Your task to perform on an android device: Show the shopping cart on target. Search for "usb-c" on target, select the first entry, and add it to the cart. Image 0: 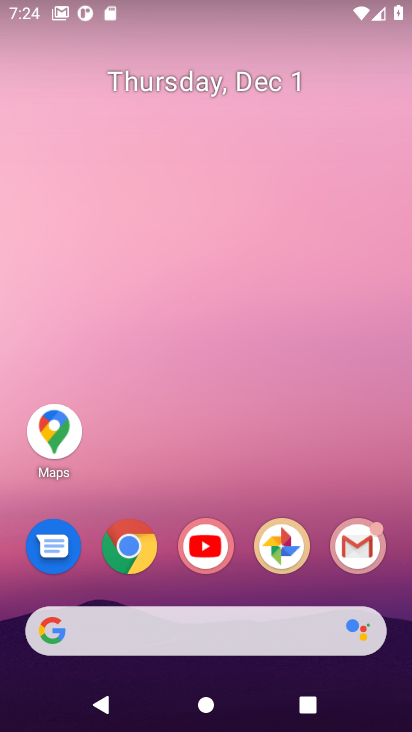
Step 0: click (129, 553)
Your task to perform on an android device: Show the shopping cart on target. Search for "usb-c" on target, select the first entry, and add it to the cart. Image 1: 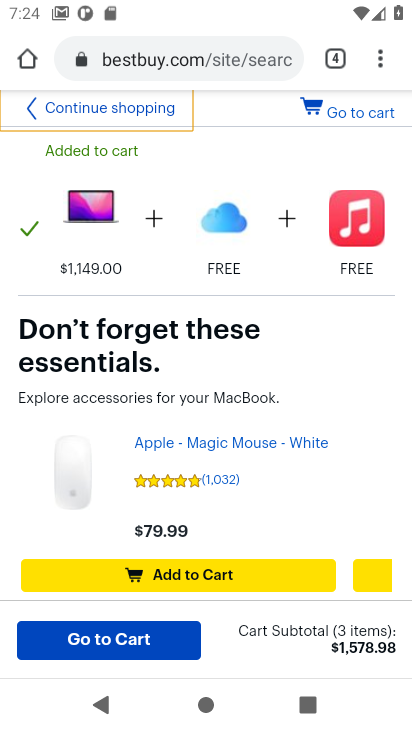
Step 1: click (149, 60)
Your task to perform on an android device: Show the shopping cart on target. Search for "usb-c" on target, select the first entry, and add it to the cart. Image 2: 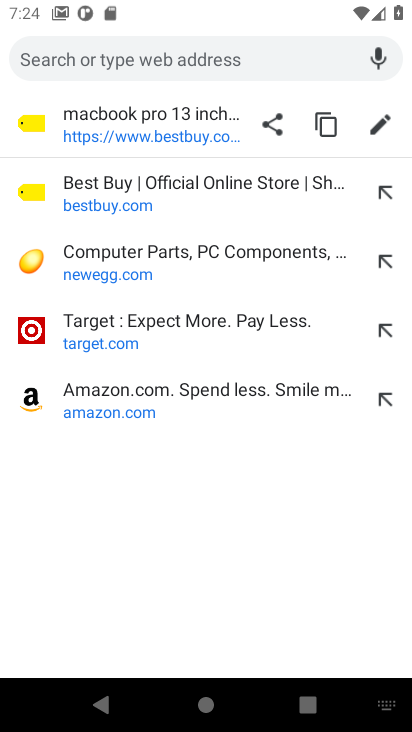
Step 2: click (80, 325)
Your task to perform on an android device: Show the shopping cart on target. Search for "usb-c" on target, select the first entry, and add it to the cart. Image 3: 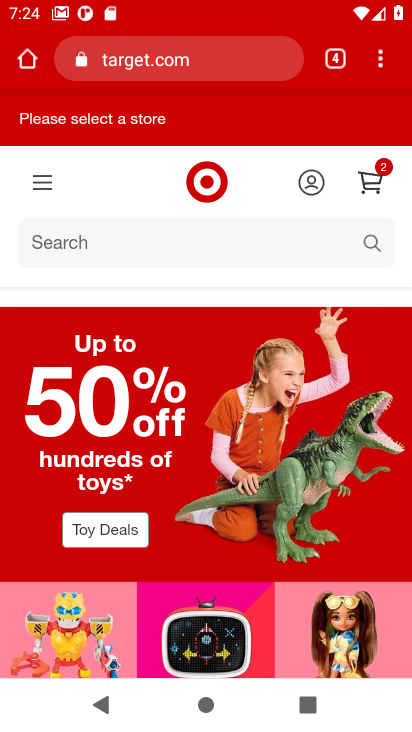
Step 3: click (373, 184)
Your task to perform on an android device: Show the shopping cart on target. Search for "usb-c" on target, select the first entry, and add it to the cart. Image 4: 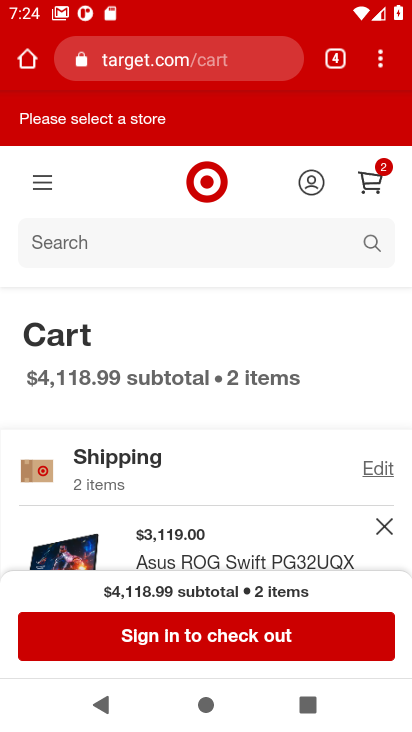
Step 4: click (64, 251)
Your task to perform on an android device: Show the shopping cart on target. Search for "usb-c" on target, select the first entry, and add it to the cart. Image 5: 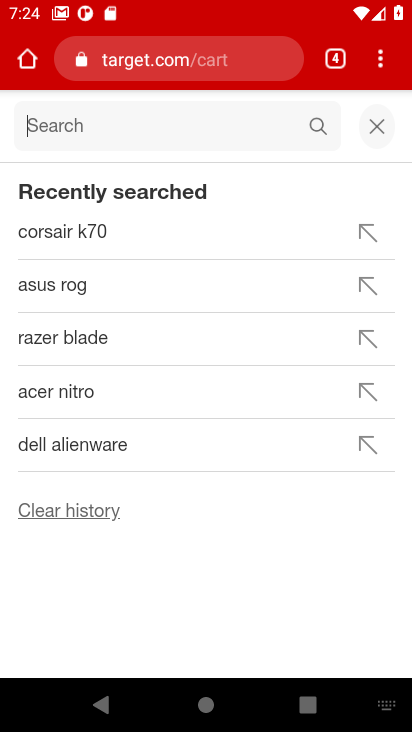
Step 5: type "usb-c"
Your task to perform on an android device: Show the shopping cart on target. Search for "usb-c" on target, select the first entry, and add it to the cart. Image 6: 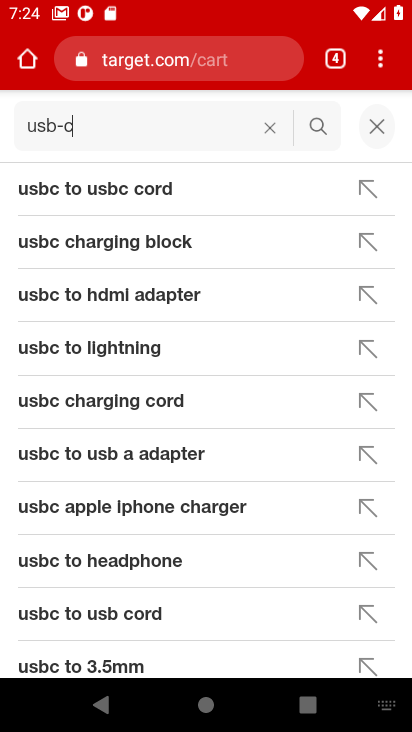
Step 6: click (317, 130)
Your task to perform on an android device: Show the shopping cart on target. Search for "usb-c" on target, select the first entry, and add it to the cart. Image 7: 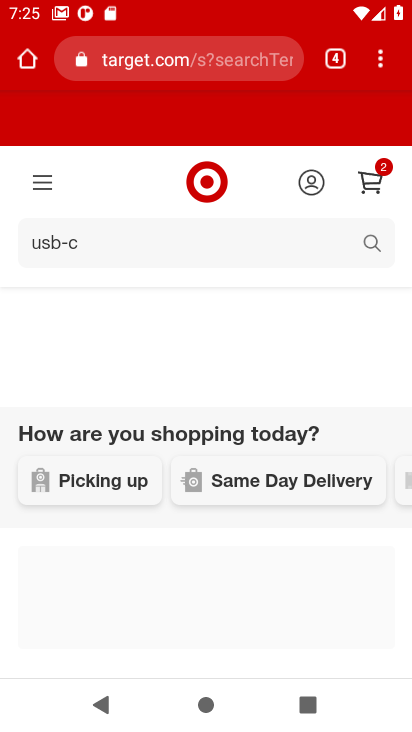
Step 7: drag from (192, 383) to (201, 167)
Your task to perform on an android device: Show the shopping cart on target. Search for "usb-c" on target, select the first entry, and add it to the cart. Image 8: 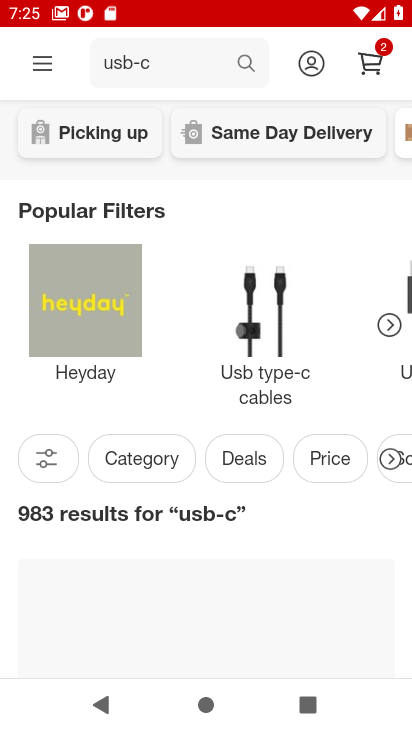
Step 8: drag from (163, 432) to (184, 186)
Your task to perform on an android device: Show the shopping cart on target. Search for "usb-c" on target, select the first entry, and add it to the cart. Image 9: 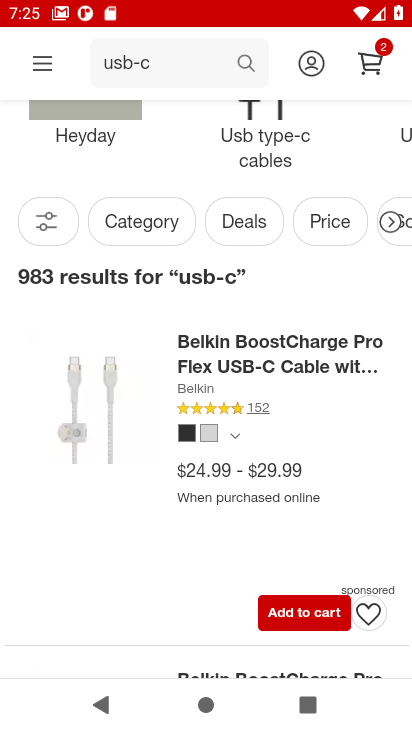
Step 9: click (213, 360)
Your task to perform on an android device: Show the shopping cart on target. Search for "usb-c" on target, select the first entry, and add it to the cart. Image 10: 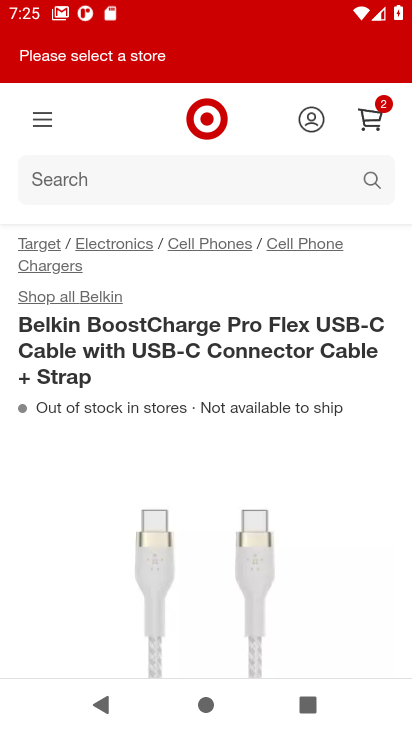
Step 10: drag from (191, 419) to (204, 185)
Your task to perform on an android device: Show the shopping cart on target. Search for "usb-c" on target, select the first entry, and add it to the cart. Image 11: 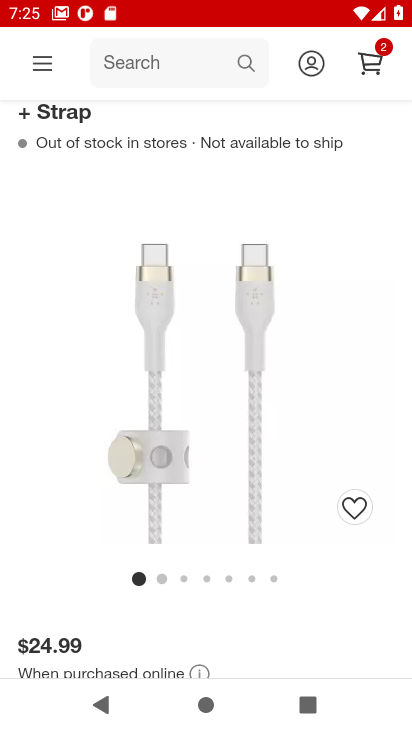
Step 11: drag from (211, 414) to (197, 153)
Your task to perform on an android device: Show the shopping cart on target. Search for "usb-c" on target, select the first entry, and add it to the cart. Image 12: 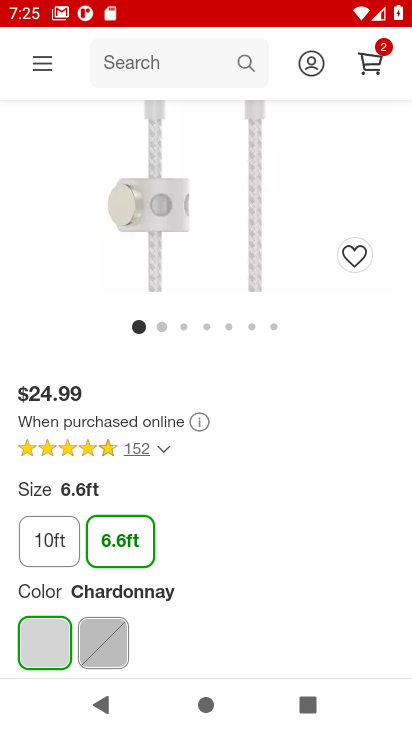
Step 12: drag from (194, 449) to (164, 155)
Your task to perform on an android device: Show the shopping cart on target. Search for "usb-c" on target, select the first entry, and add it to the cart. Image 13: 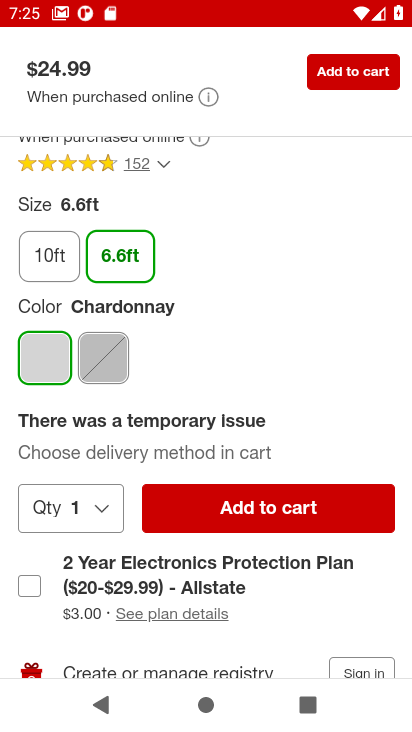
Step 13: click (219, 504)
Your task to perform on an android device: Show the shopping cart on target. Search for "usb-c" on target, select the first entry, and add it to the cart. Image 14: 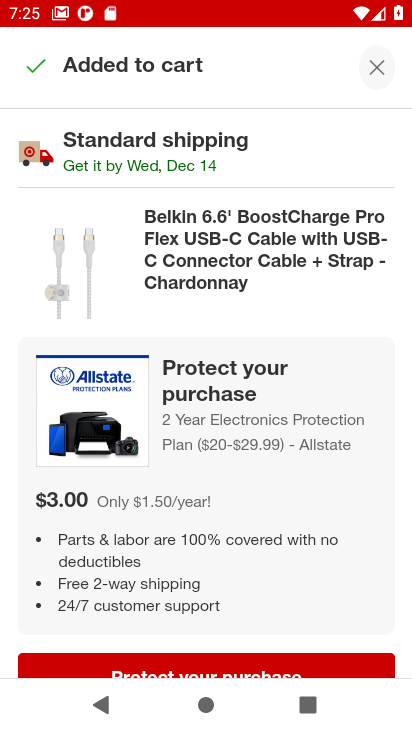
Step 14: task complete